Your task to perform on an android device: allow cookies in the chrome app Image 0: 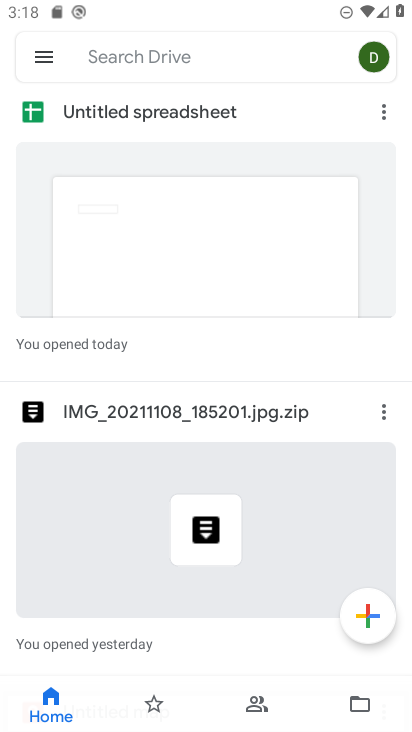
Step 0: press home button
Your task to perform on an android device: allow cookies in the chrome app Image 1: 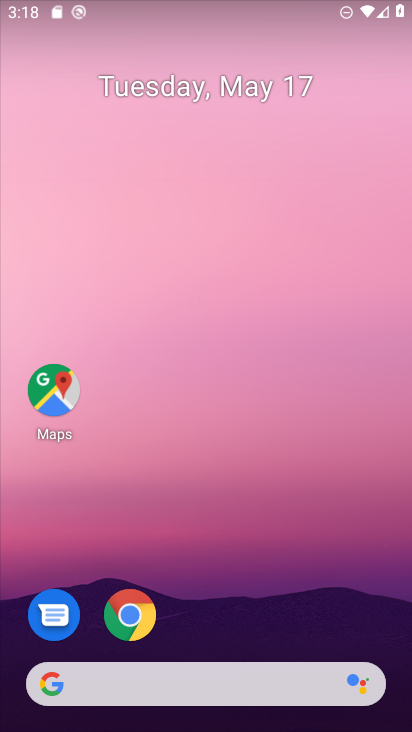
Step 1: click (127, 610)
Your task to perform on an android device: allow cookies in the chrome app Image 2: 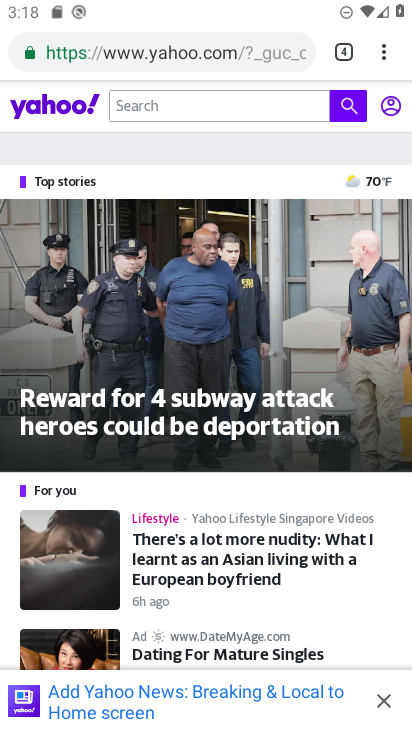
Step 2: click (385, 57)
Your task to perform on an android device: allow cookies in the chrome app Image 3: 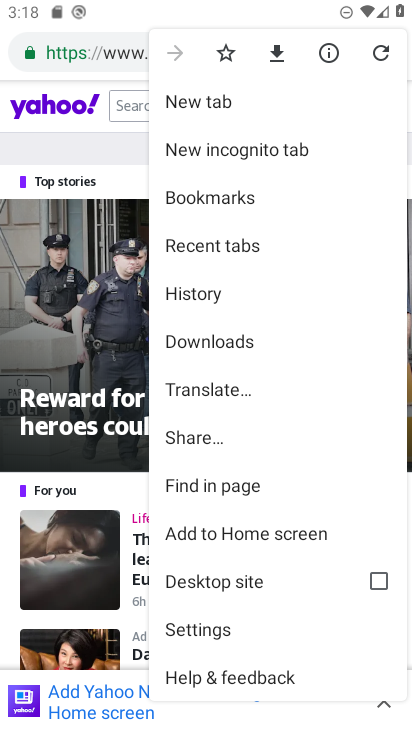
Step 3: drag from (212, 577) to (197, 297)
Your task to perform on an android device: allow cookies in the chrome app Image 4: 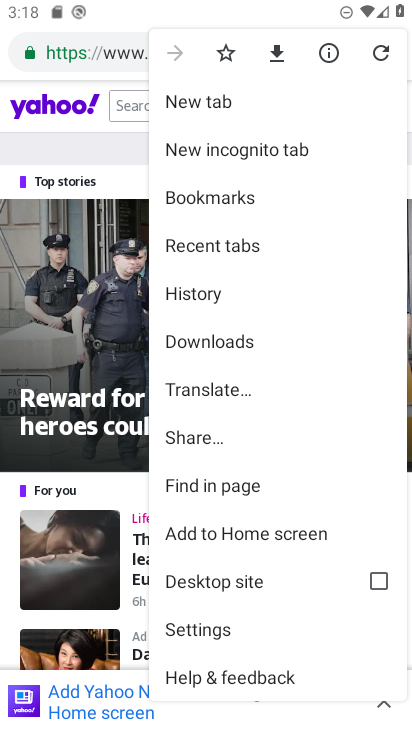
Step 4: click (215, 624)
Your task to perform on an android device: allow cookies in the chrome app Image 5: 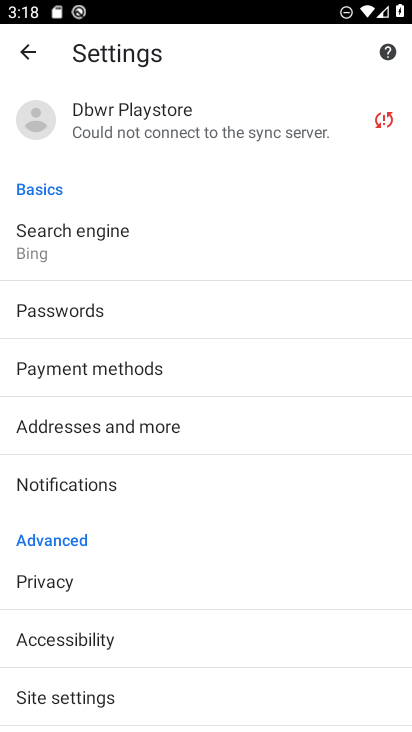
Step 5: drag from (97, 561) to (105, 205)
Your task to perform on an android device: allow cookies in the chrome app Image 6: 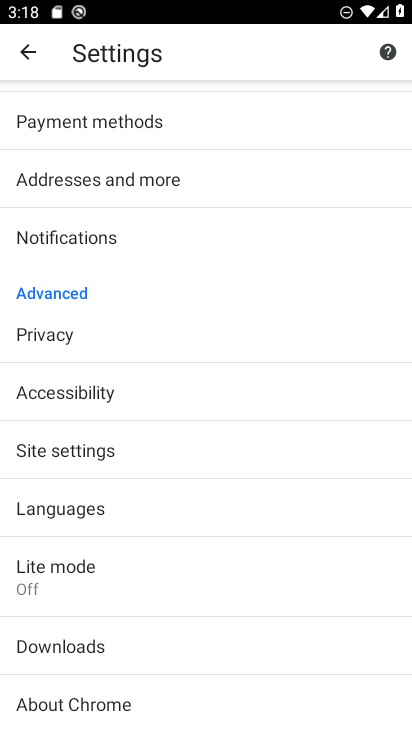
Step 6: click (50, 445)
Your task to perform on an android device: allow cookies in the chrome app Image 7: 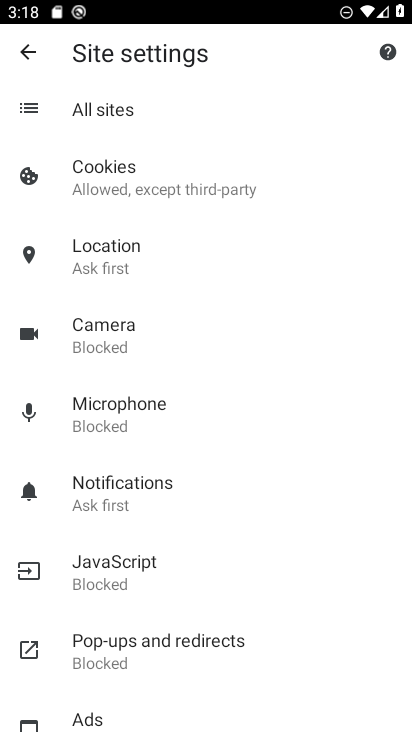
Step 7: click (101, 170)
Your task to perform on an android device: allow cookies in the chrome app Image 8: 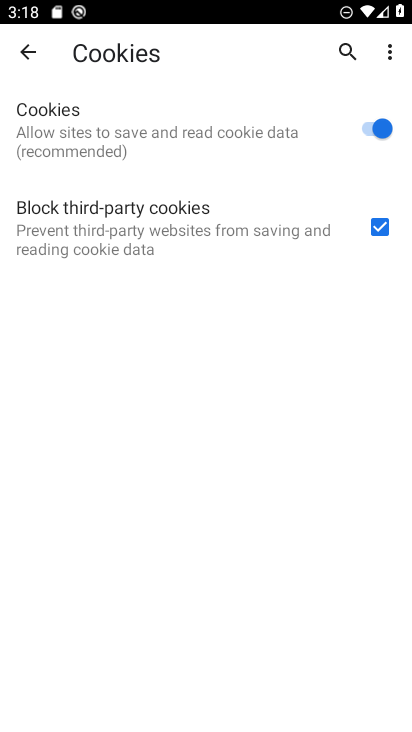
Step 8: task complete